Your task to perform on an android device: See recent photos Image 0: 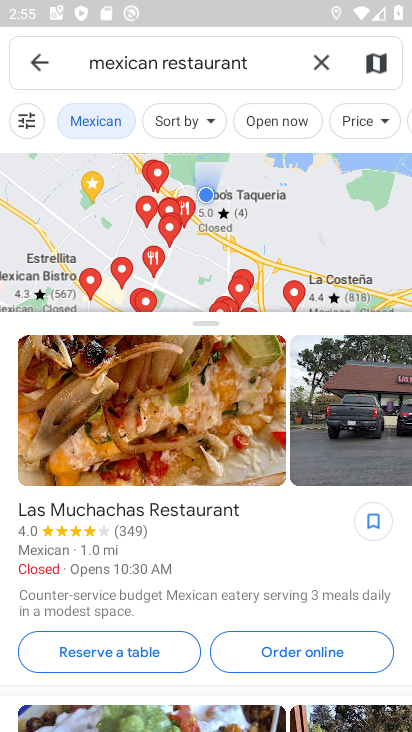
Step 0: press home button
Your task to perform on an android device: See recent photos Image 1: 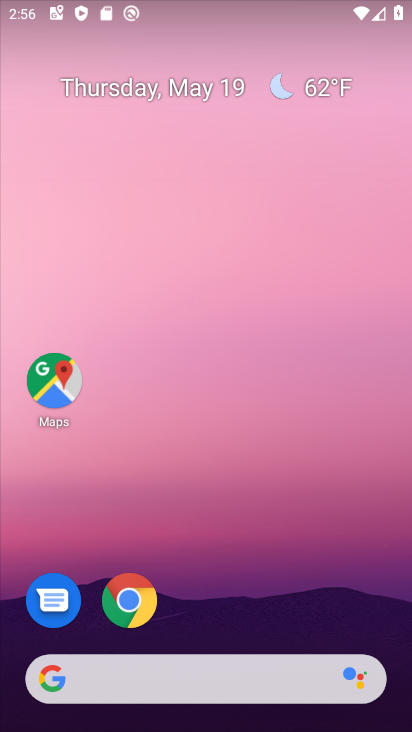
Step 1: drag from (149, 436) to (188, 341)
Your task to perform on an android device: See recent photos Image 2: 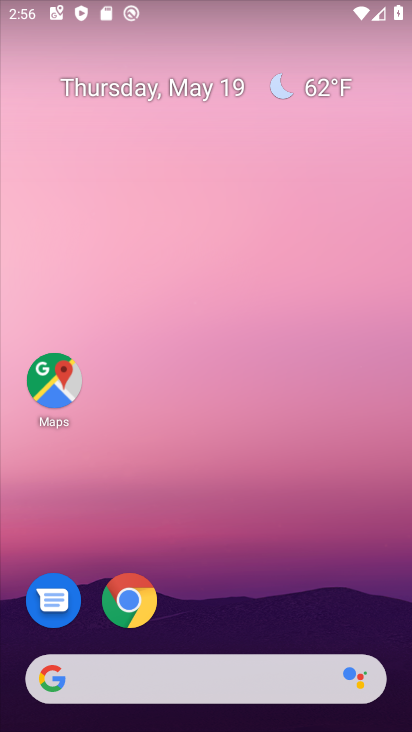
Step 2: drag from (61, 478) to (256, 70)
Your task to perform on an android device: See recent photos Image 3: 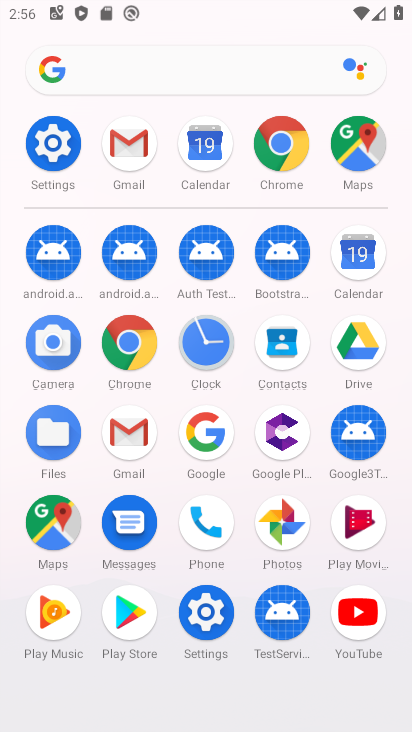
Step 3: click (275, 524)
Your task to perform on an android device: See recent photos Image 4: 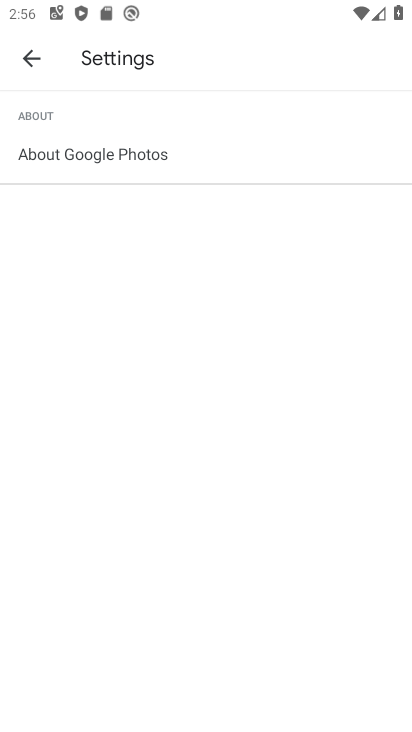
Step 4: press back button
Your task to perform on an android device: See recent photos Image 5: 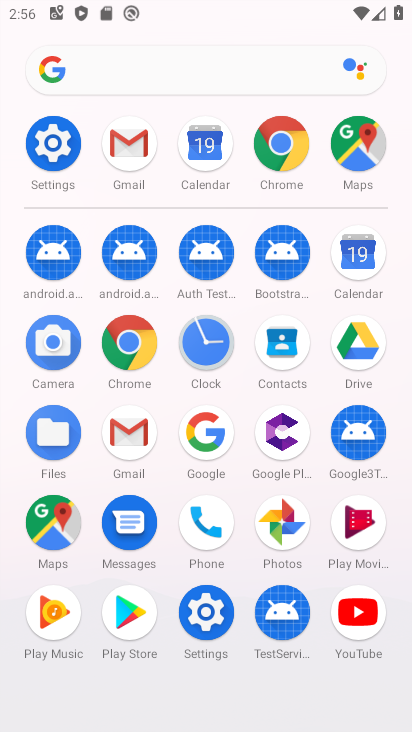
Step 5: click (289, 520)
Your task to perform on an android device: See recent photos Image 6: 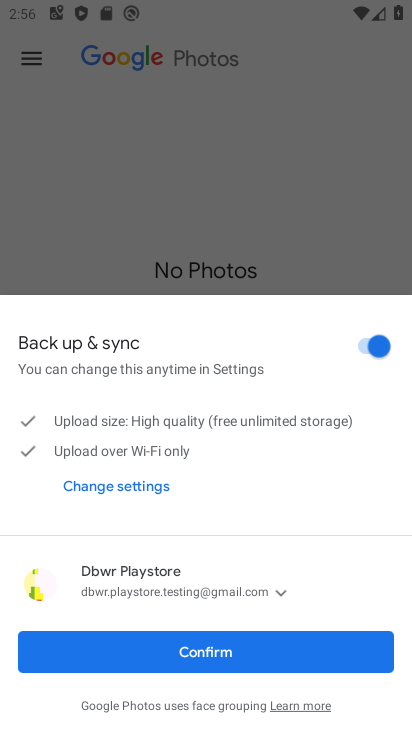
Step 6: click (195, 646)
Your task to perform on an android device: See recent photos Image 7: 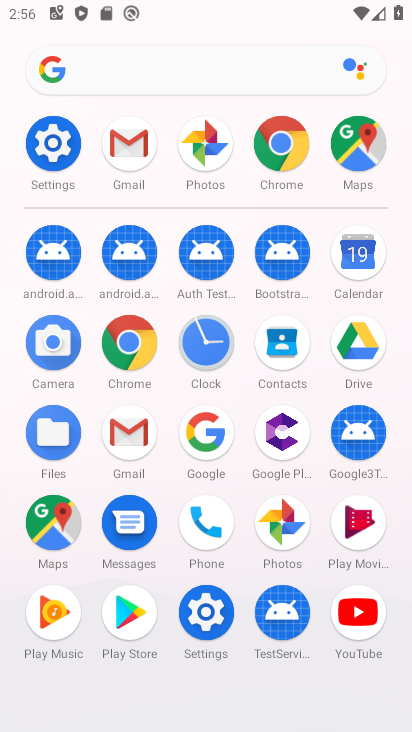
Step 7: click (270, 523)
Your task to perform on an android device: See recent photos Image 8: 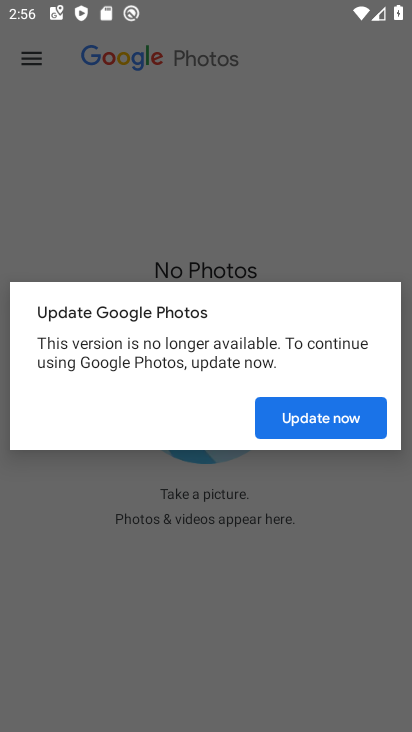
Step 8: click (331, 413)
Your task to perform on an android device: See recent photos Image 9: 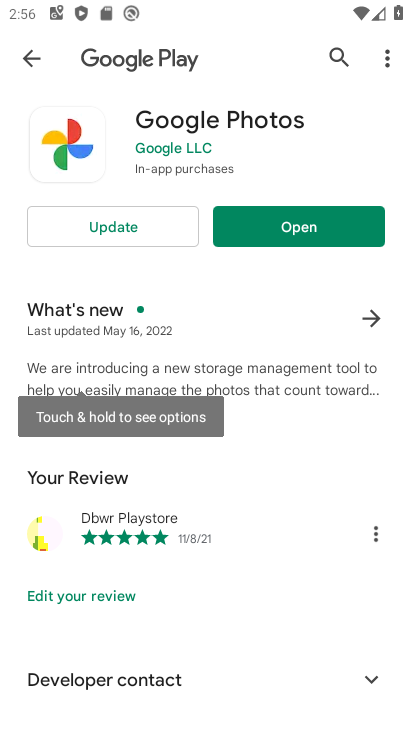
Step 9: click (274, 222)
Your task to perform on an android device: See recent photos Image 10: 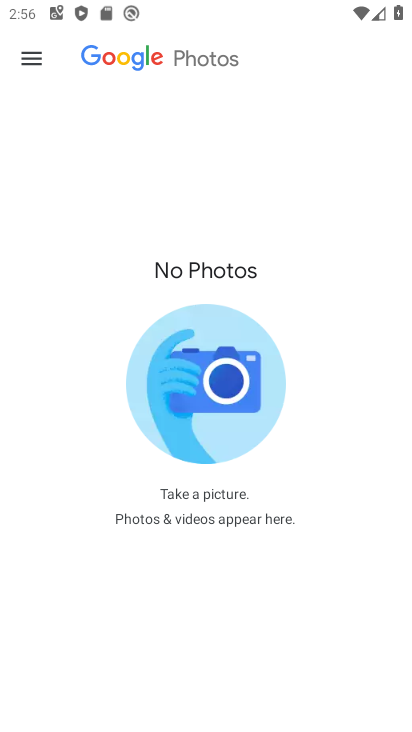
Step 10: click (22, 57)
Your task to perform on an android device: See recent photos Image 11: 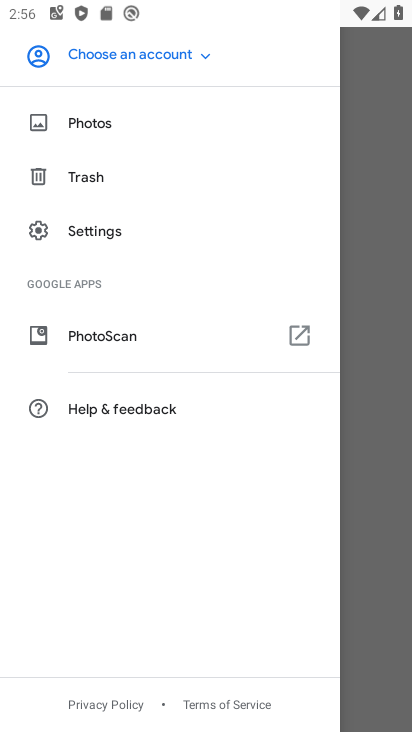
Step 11: click (120, 123)
Your task to perform on an android device: See recent photos Image 12: 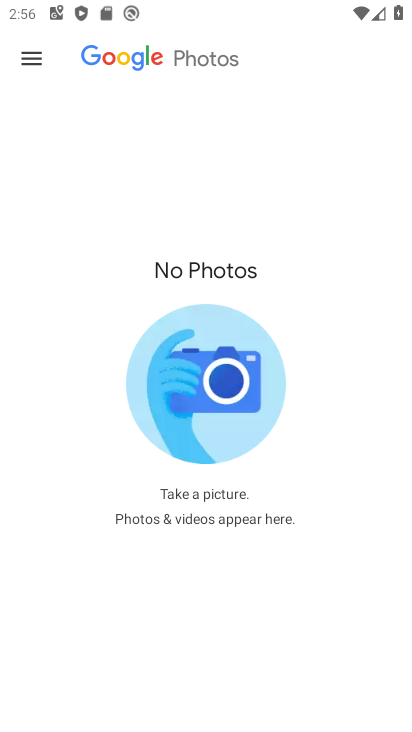
Step 12: task complete